Your task to perform on an android device: Open calendar and show me the third week of next month Image 0: 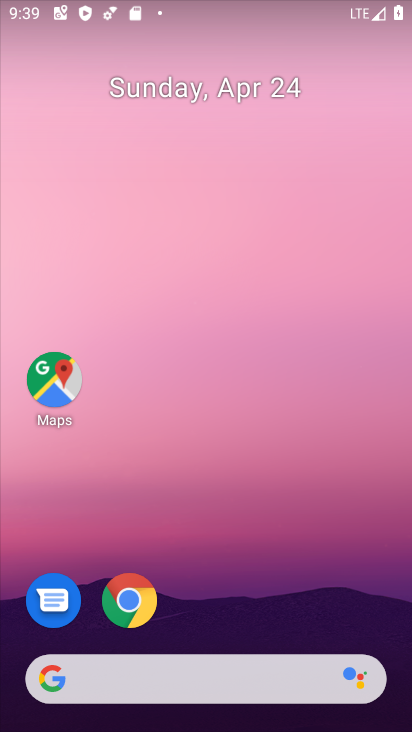
Step 0: drag from (205, 529) to (283, 15)
Your task to perform on an android device: Open calendar and show me the third week of next month Image 1: 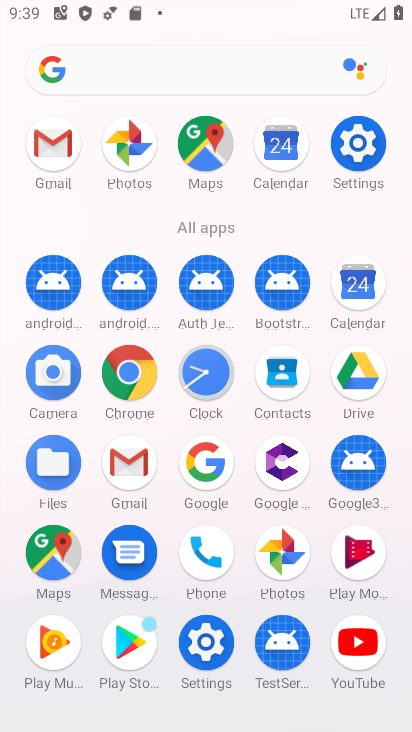
Step 1: click (373, 285)
Your task to perform on an android device: Open calendar and show me the third week of next month Image 2: 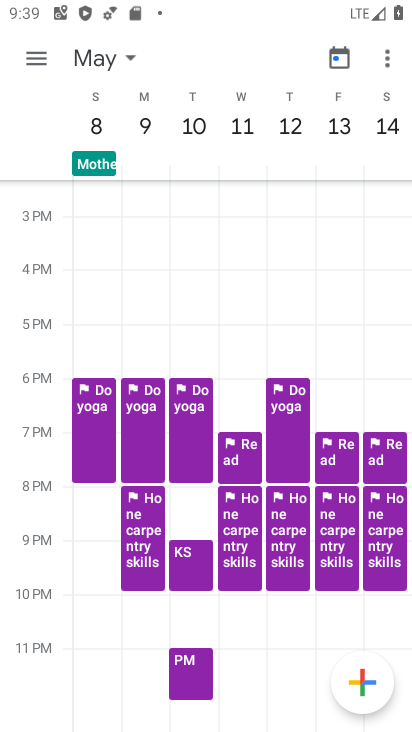
Step 2: task complete